Your task to perform on an android device: open a bookmark in the chrome app Image 0: 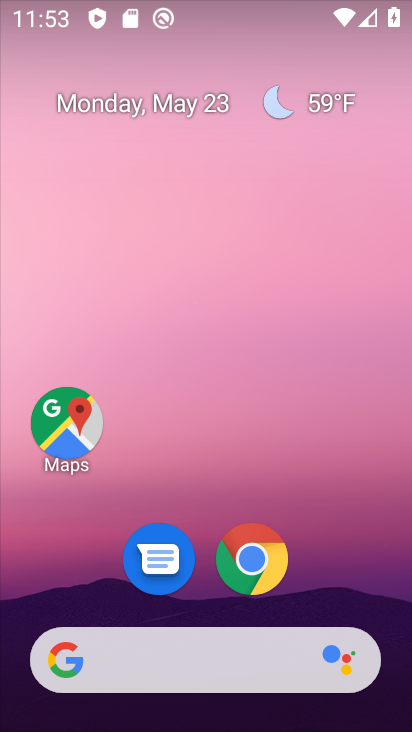
Step 0: drag from (393, 631) to (306, 75)
Your task to perform on an android device: open a bookmark in the chrome app Image 1: 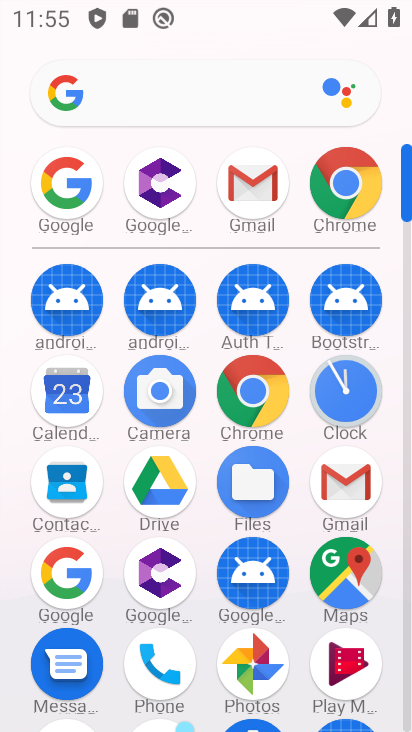
Step 1: click (362, 161)
Your task to perform on an android device: open a bookmark in the chrome app Image 2: 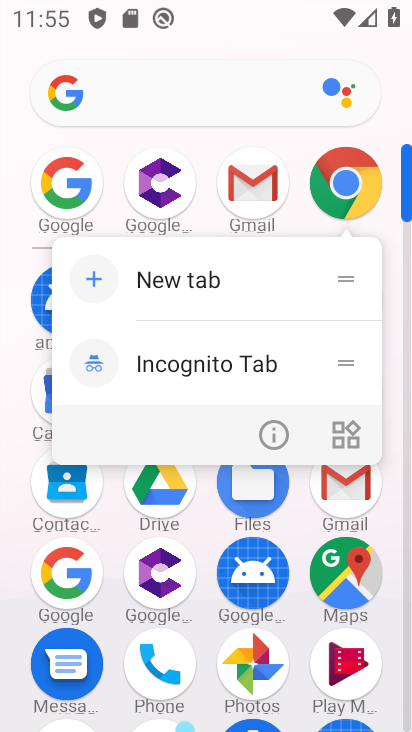
Step 2: click (362, 161)
Your task to perform on an android device: open a bookmark in the chrome app Image 3: 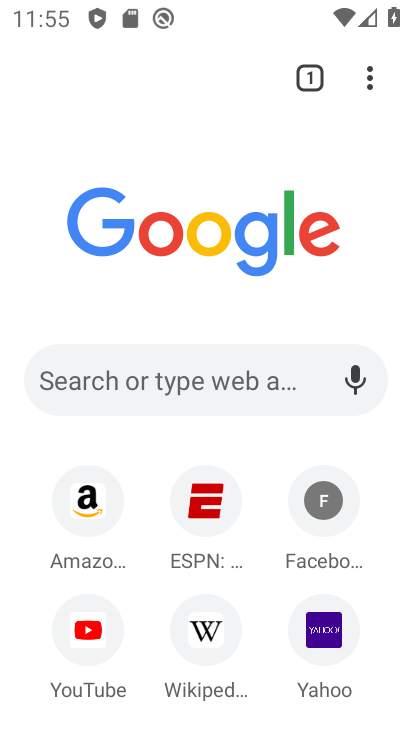
Step 3: click (374, 68)
Your task to perform on an android device: open a bookmark in the chrome app Image 4: 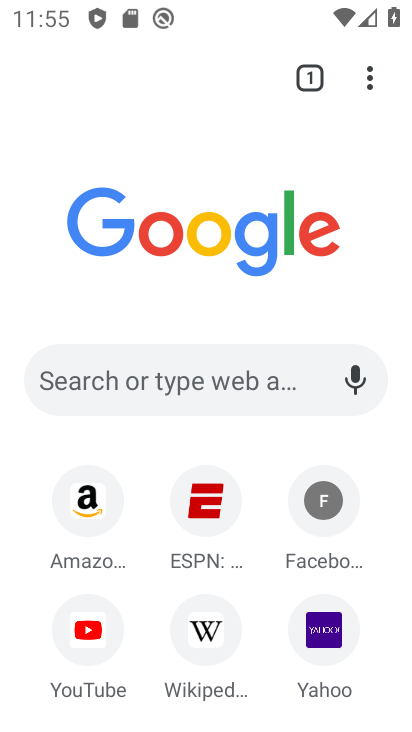
Step 4: click (372, 69)
Your task to perform on an android device: open a bookmark in the chrome app Image 5: 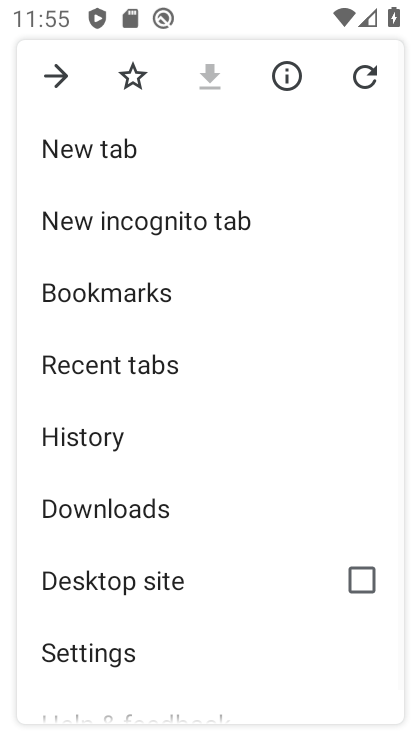
Step 5: click (127, 293)
Your task to perform on an android device: open a bookmark in the chrome app Image 6: 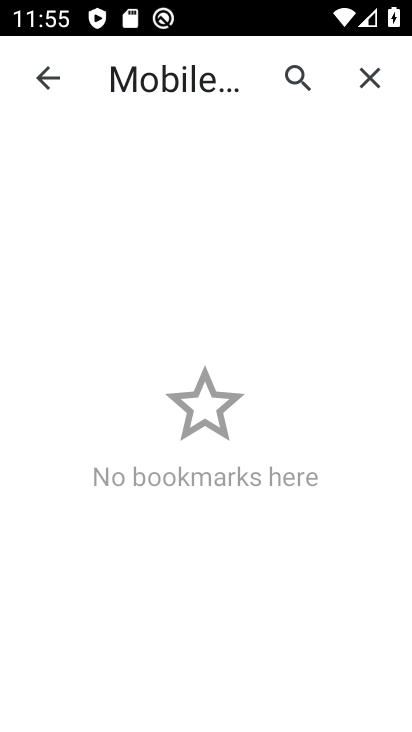
Step 6: task complete